Your task to perform on an android device: Open my contact list Image 0: 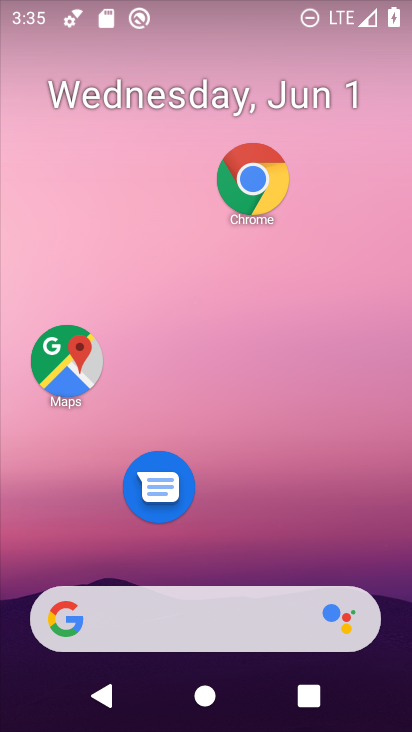
Step 0: drag from (189, 555) to (219, 256)
Your task to perform on an android device: Open my contact list Image 1: 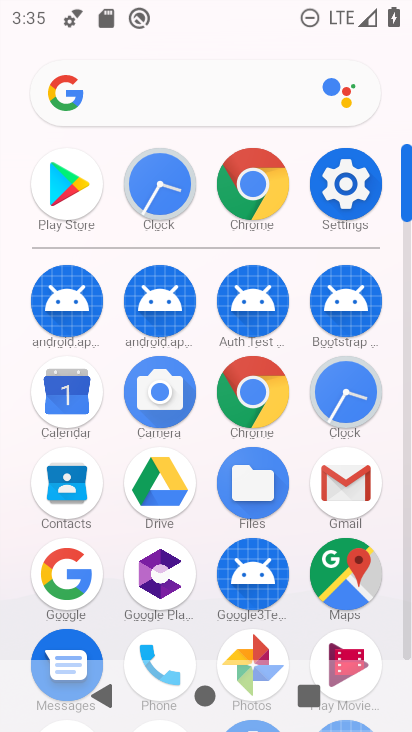
Step 1: click (161, 646)
Your task to perform on an android device: Open my contact list Image 2: 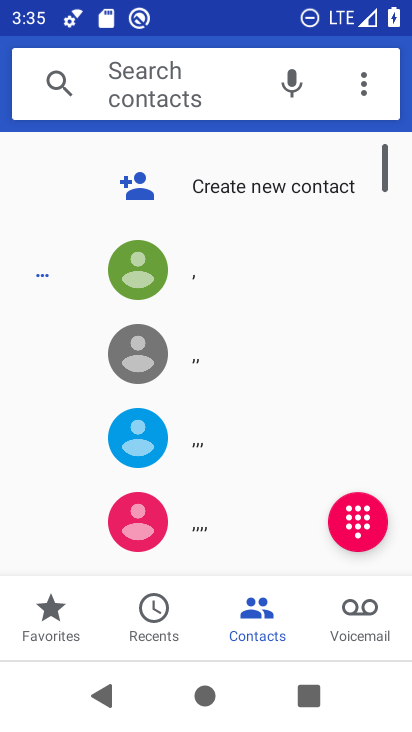
Step 2: task complete